Your task to perform on an android device: turn off picture-in-picture Image 0: 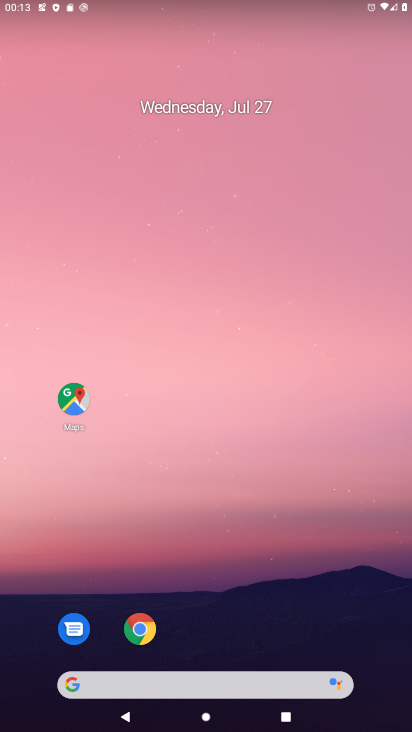
Step 0: drag from (224, 694) to (224, 260)
Your task to perform on an android device: turn off picture-in-picture Image 1: 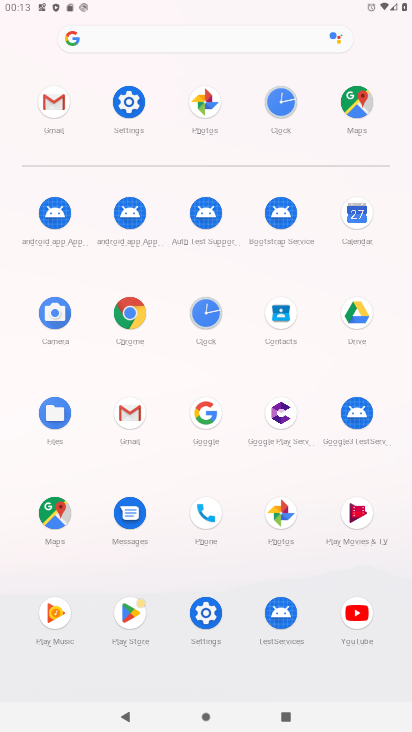
Step 1: click (133, 99)
Your task to perform on an android device: turn off picture-in-picture Image 2: 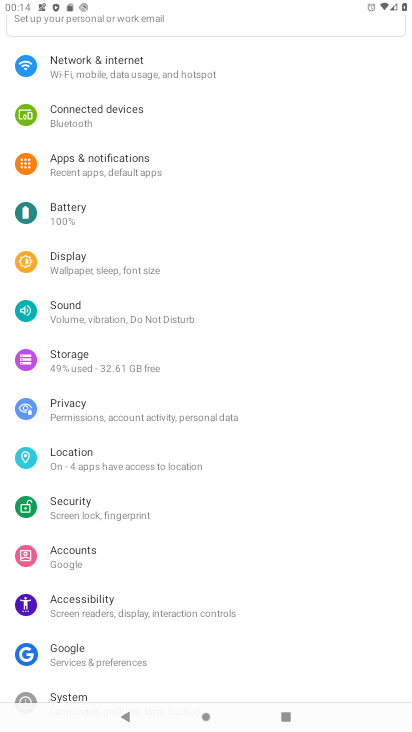
Step 2: click (110, 165)
Your task to perform on an android device: turn off picture-in-picture Image 3: 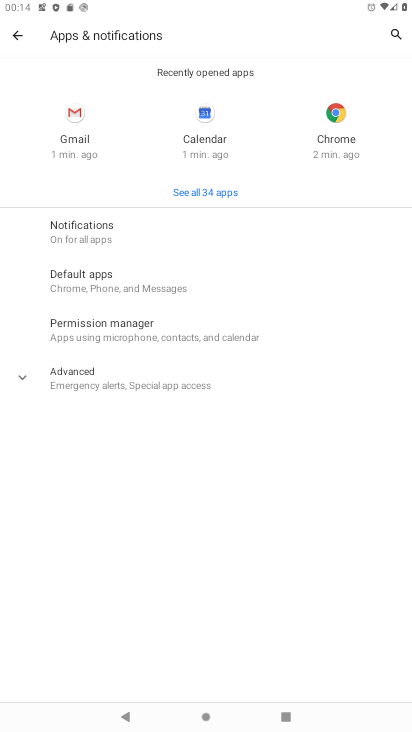
Step 3: click (119, 381)
Your task to perform on an android device: turn off picture-in-picture Image 4: 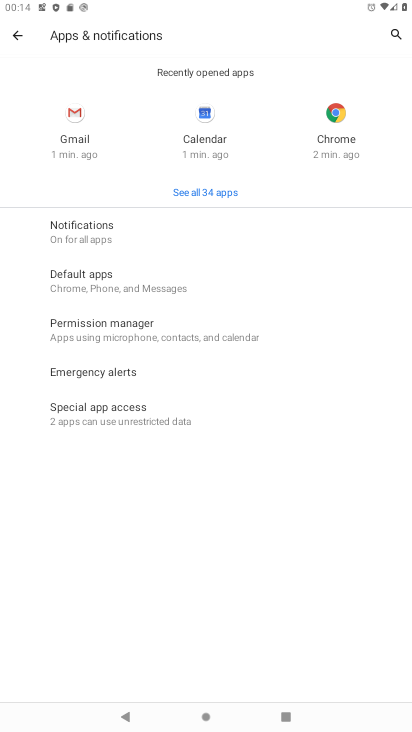
Step 4: click (96, 415)
Your task to perform on an android device: turn off picture-in-picture Image 5: 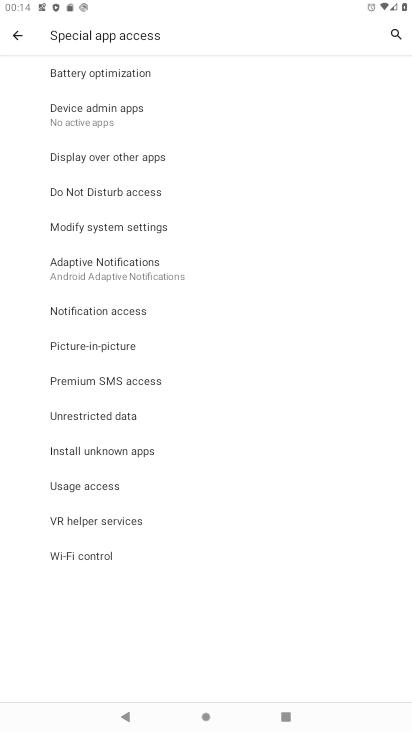
Step 5: click (89, 346)
Your task to perform on an android device: turn off picture-in-picture Image 6: 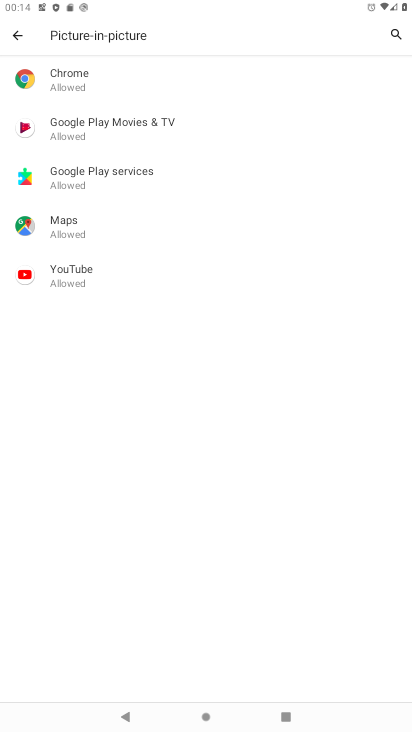
Step 6: click (65, 266)
Your task to perform on an android device: turn off picture-in-picture Image 7: 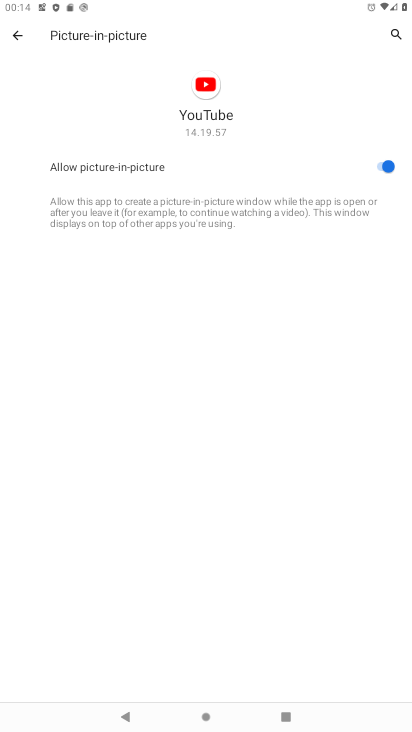
Step 7: click (381, 165)
Your task to perform on an android device: turn off picture-in-picture Image 8: 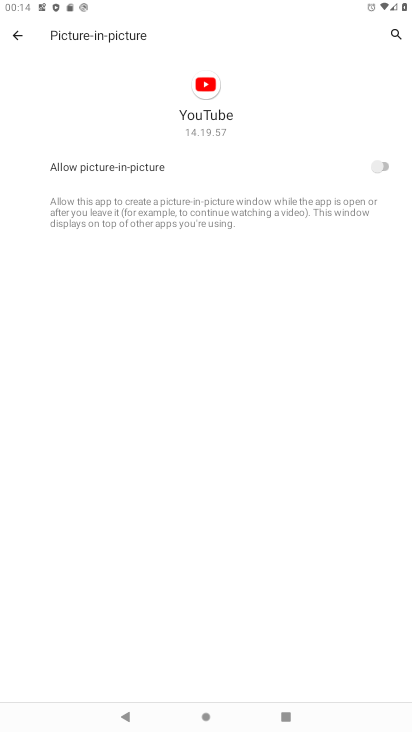
Step 8: task complete